Your task to perform on an android device: Open Yahoo.com Image 0: 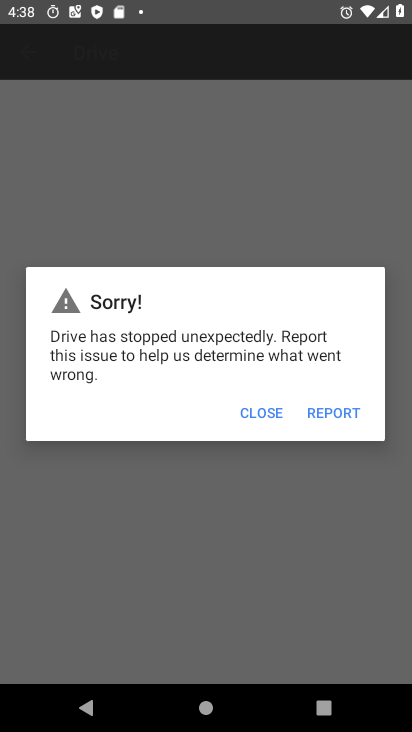
Step 0: click (121, 256)
Your task to perform on an android device: Open Yahoo.com Image 1: 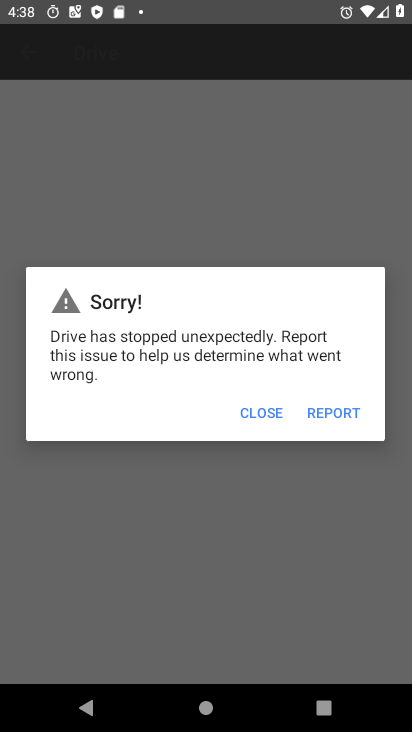
Step 1: click (276, 414)
Your task to perform on an android device: Open Yahoo.com Image 2: 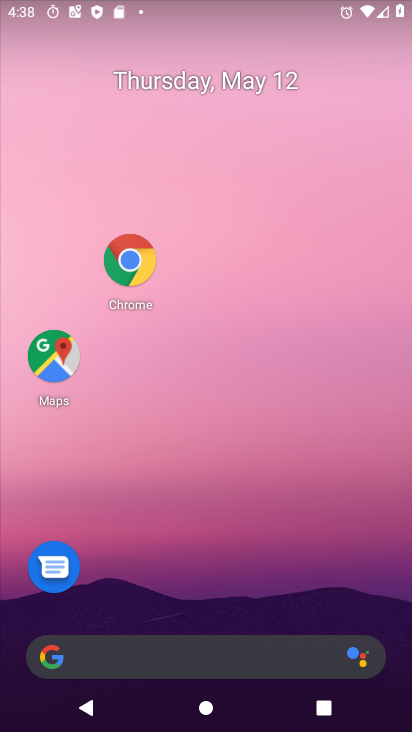
Step 2: click (123, 262)
Your task to perform on an android device: Open Yahoo.com Image 3: 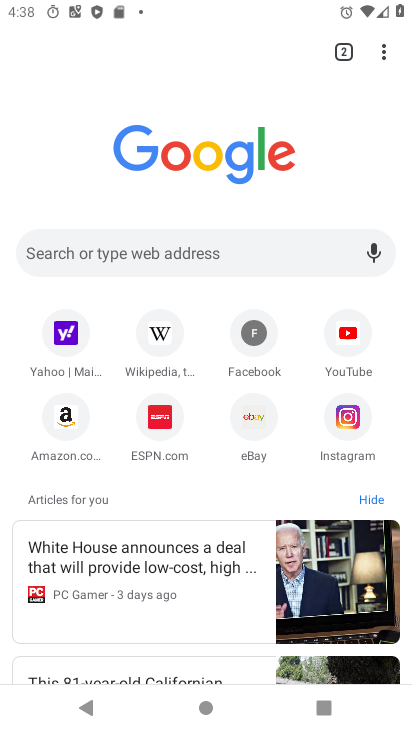
Step 3: click (70, 342)
Your task to perform on an android device: Open Yahoo.com Image 4: 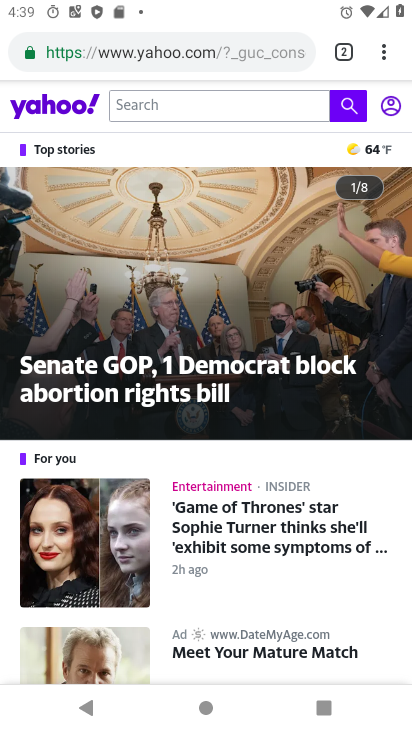
Step 4: task complete